Your task to perform on an android device: install app "Viber Messenger" Image 0: 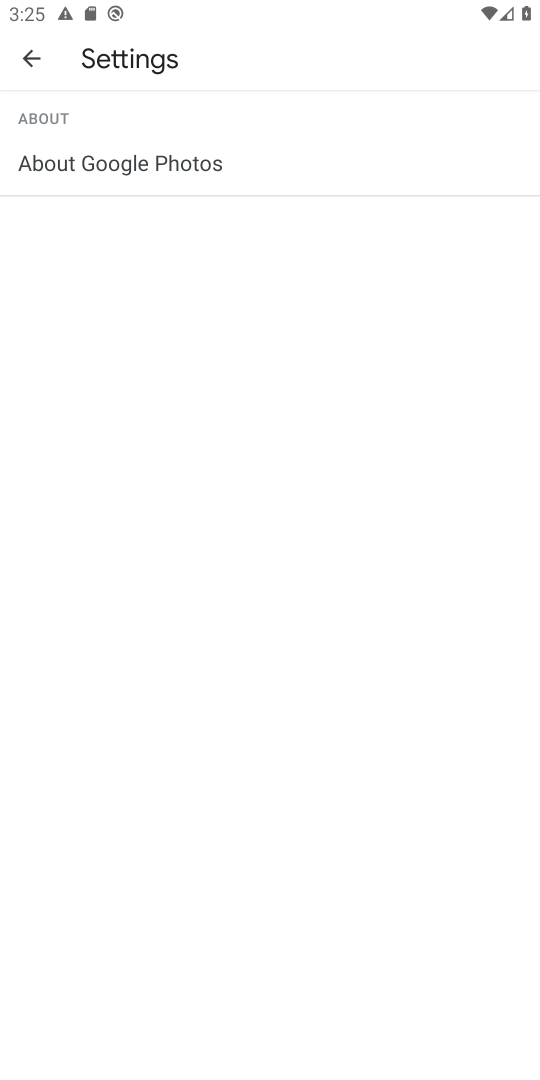
Step 0: press home button
Your task to perform on an android device: install app "Viber Messenger" Image 1: 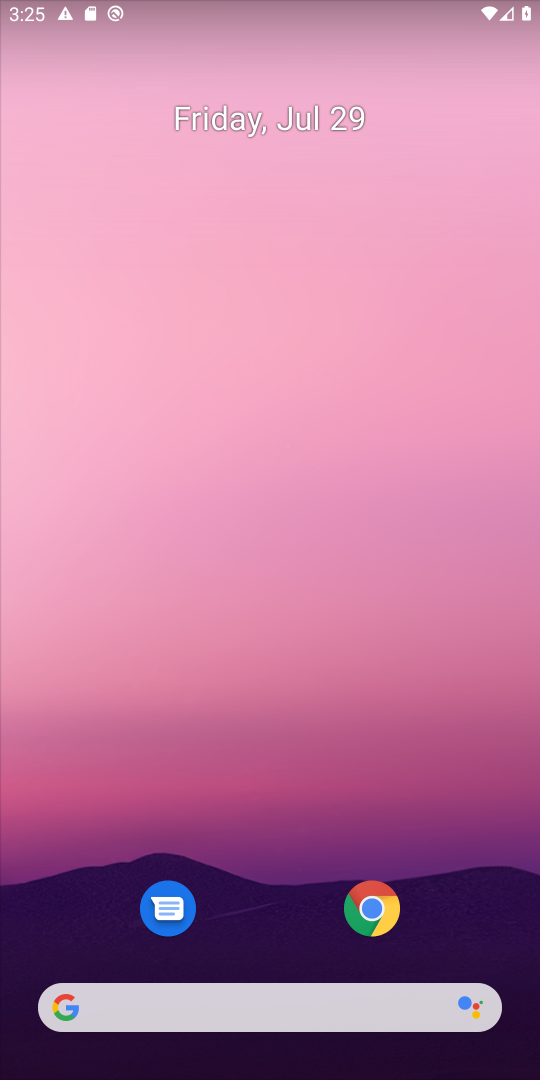
Step 1: drag from (241, 995) to (40, 80)
Your task to perform on an android device: install app "Viber Messenger" Image 2: 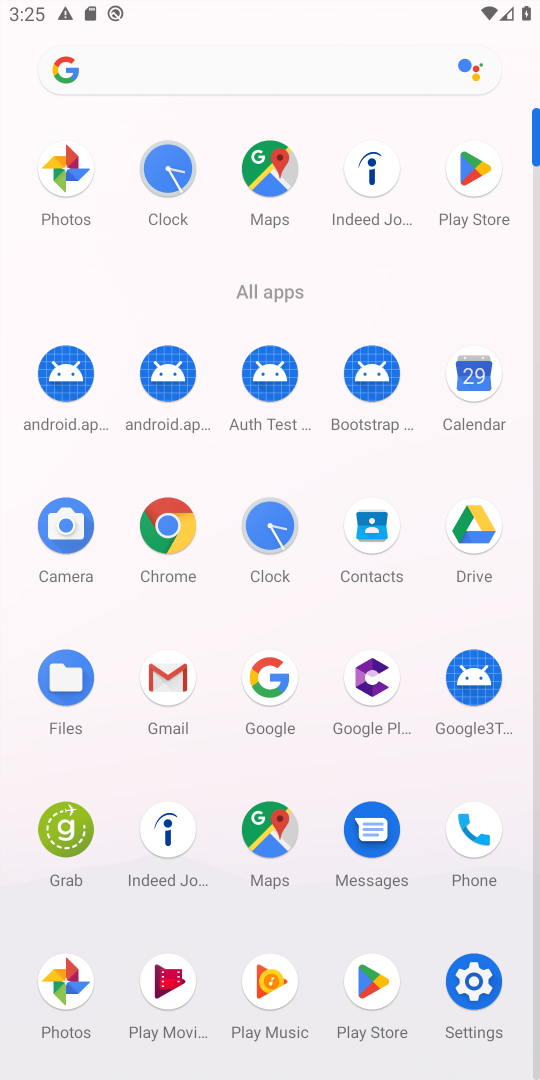
Step 2: click (369, 976)
Your task to perform on an android device: install app "Viber Messenger" Image 3: 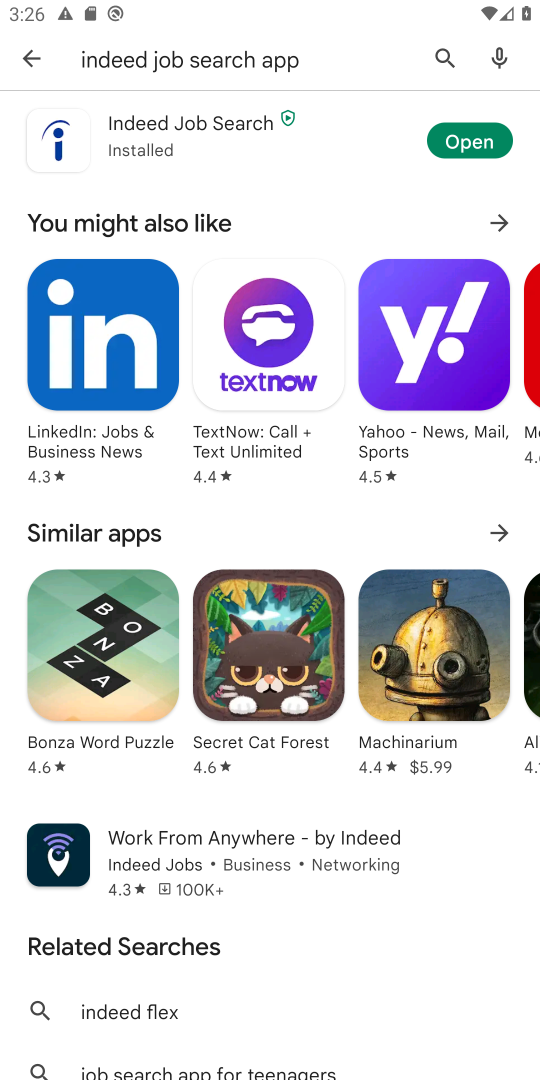
Step 3: click (438, 53)
Your task to perform on an android device: install app "Viber Messenger" Image 4: 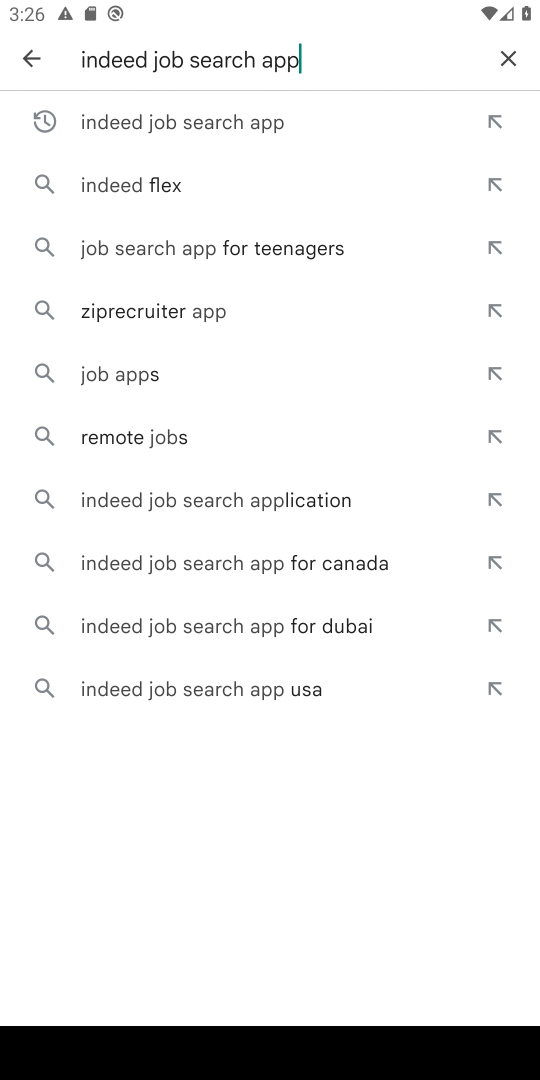
Step 4: click (508, 54)
Your task to perform on an android device: install app "Viber Messenger" Image 5: 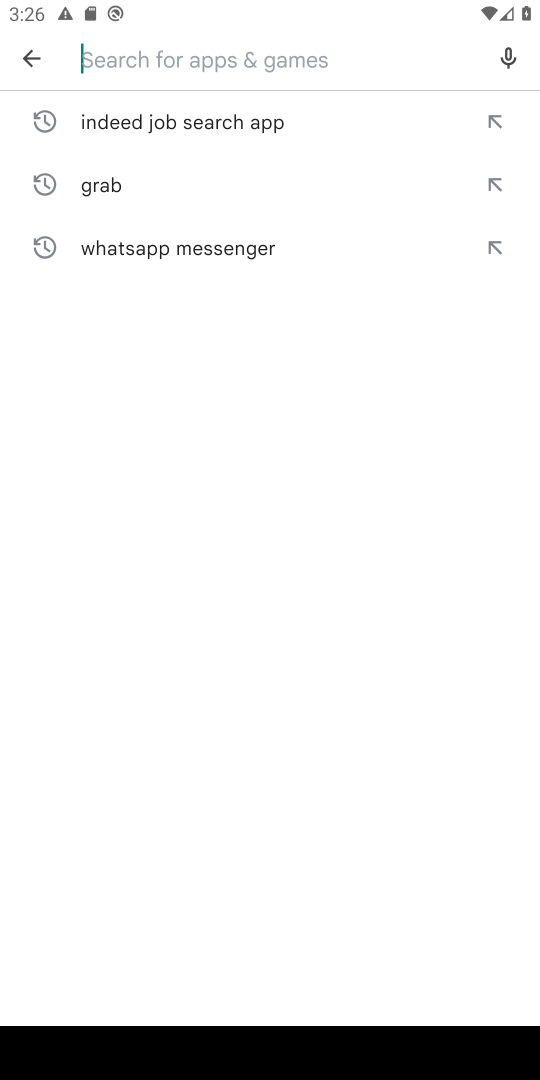
Step 5: type "Viber Messenger"
Your task to perform on an android device: install app "Viber Messenger" Image 6: 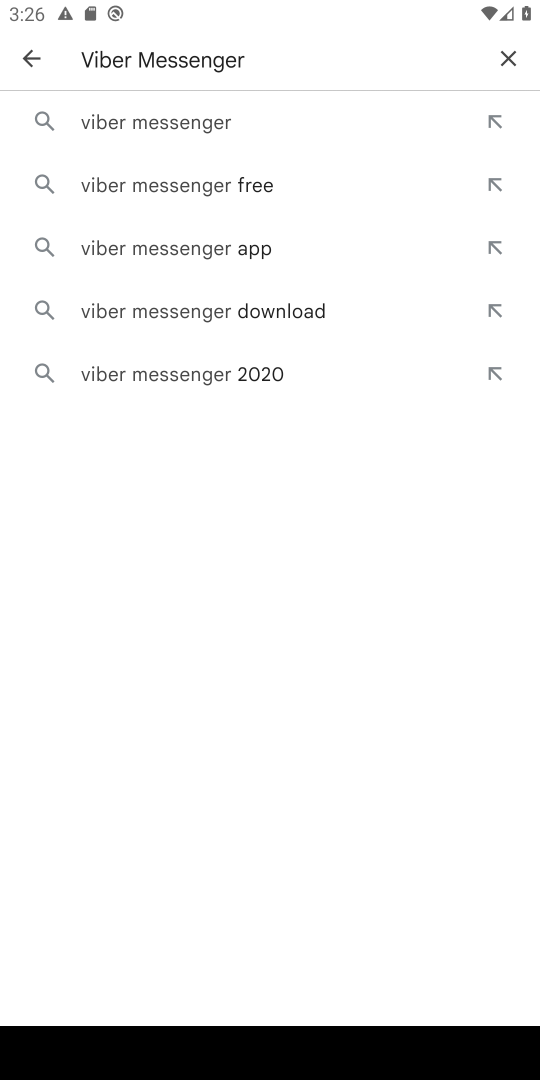
Step 6: click (159, 129)
Your task to perform on an android device: install app "Viber Messenger" Image 7: 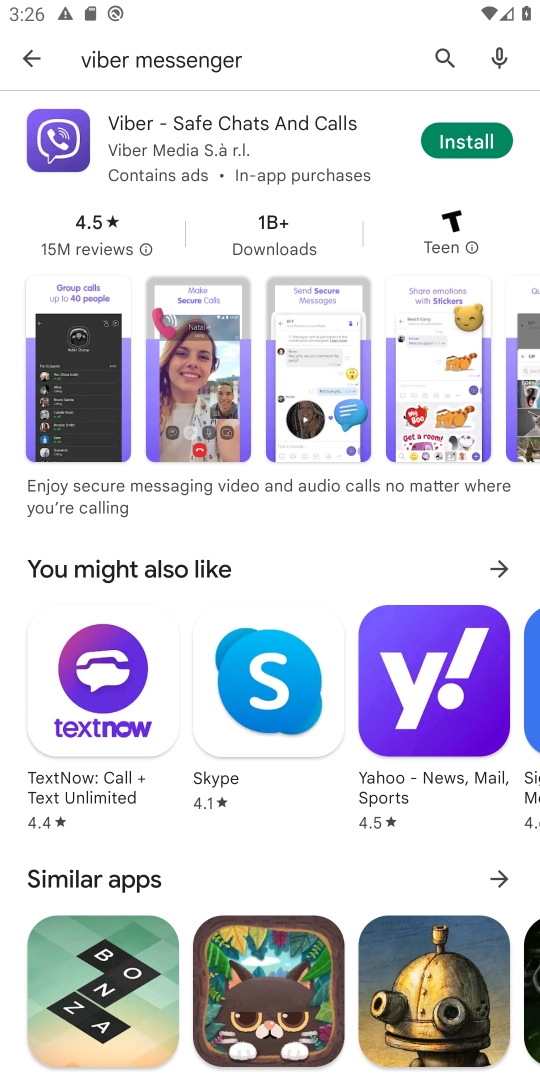
Step 7: click (463, 145)
Your task to perform on an android device: install app "Viber Messenger" Image 8: 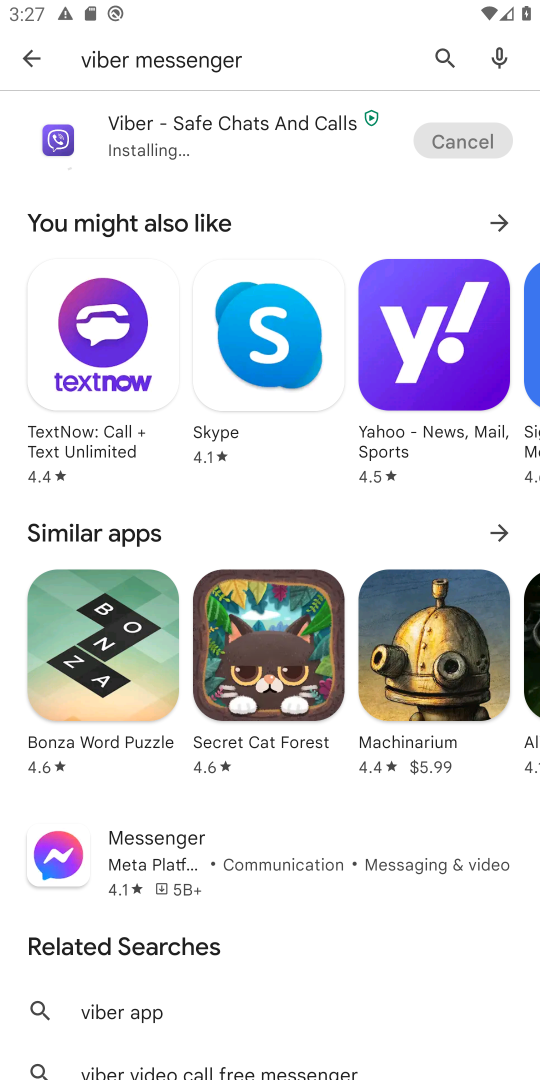
Step 8: task complete